Your task to perform on an android device: toggle improve location accuracy Image 0: 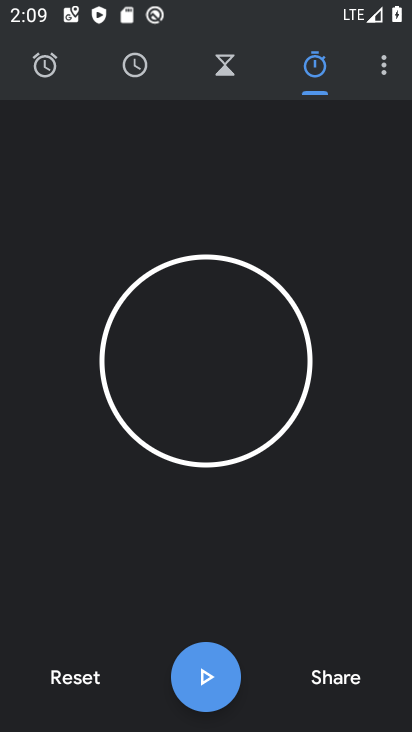
Step 0: press home button
Your task to perform on an android device: toggle improve location accuracy Image 1: 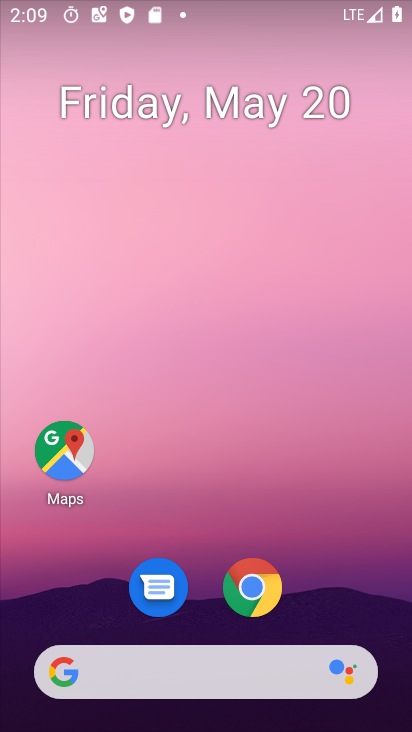
Step 1: drag from (312, 556) to (322, 219)
Your task to perform on an android device: toggle improve location accuracy Image 2: 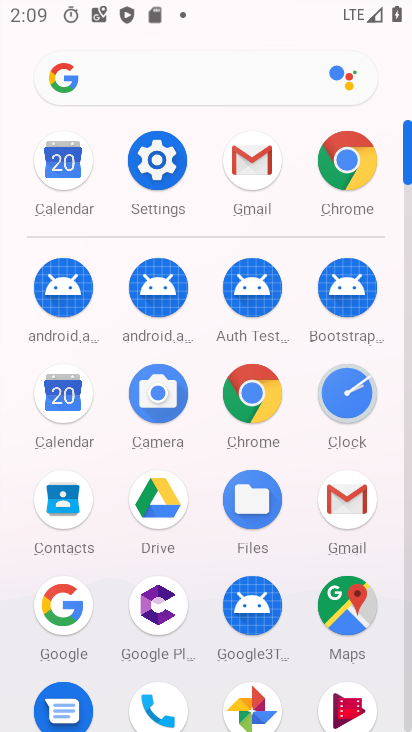
Step 2: click (170, 172)
Your task to perform on an android device: toggle improve location accuracy Image 3: 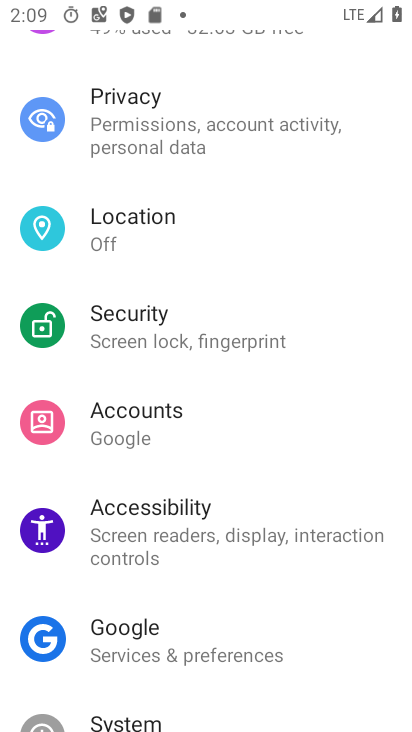
Step 3: drag from (266, 668) to (310, 215)
Your task to perform on an android device: toggle improve location accuracy Image 4: 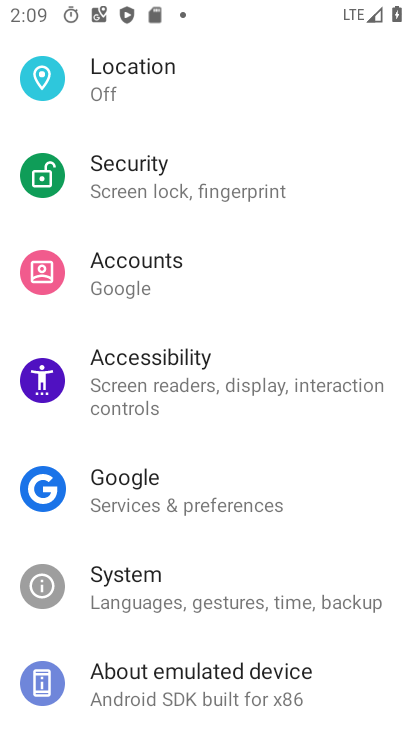
Step 4: drag from (268, 277) to (265, 588)
Your task to perform on an android device: toggle improve location accuracy Image 5: 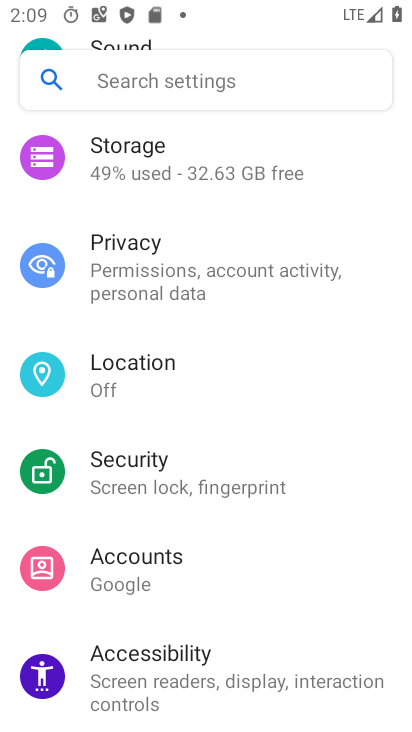
Step 5: click (153, 374)
Your task to perform on an android device: toggle improve location accuracy Image 6: 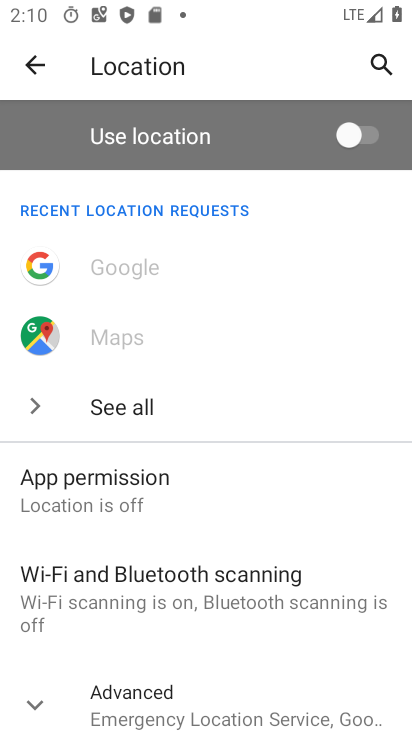
Step 6: drag from (257, 513) to (297, 86)
Your task to perform on an android device: toggle improve location accuracy Image 7: 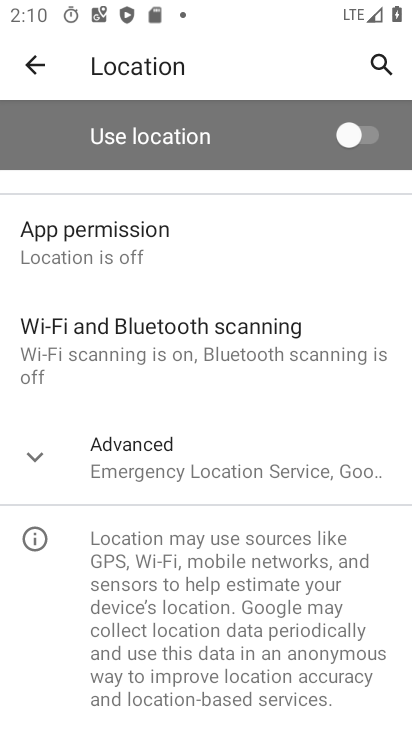
Step 7: click (166, 460)
Your task to perform on an android device: toggle improve location accuracy Image 8: 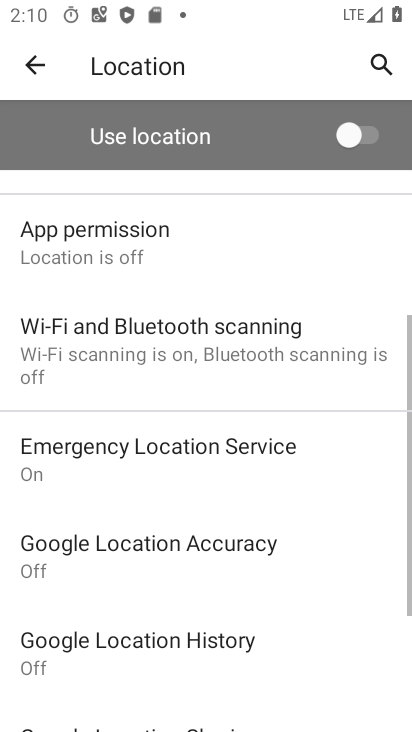
Step 8: drag from (311, 545) to (380, 207)
Your task to perform on an android device: toggle improve location accuracy Image 9: 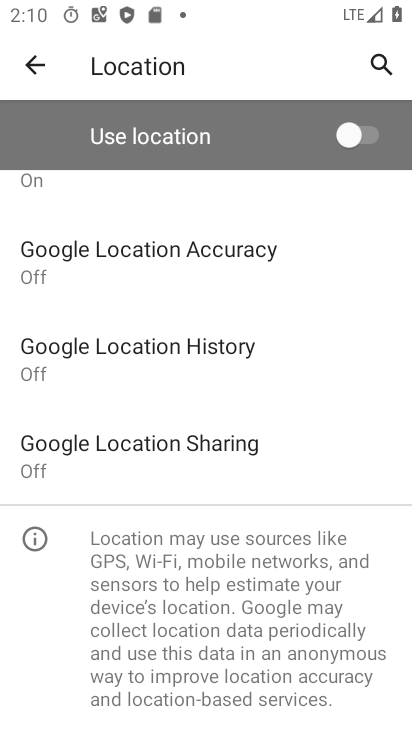
Step 9: click (232, 259)
Your task to perform on an android device: toggle improve location accuracy Image 10: 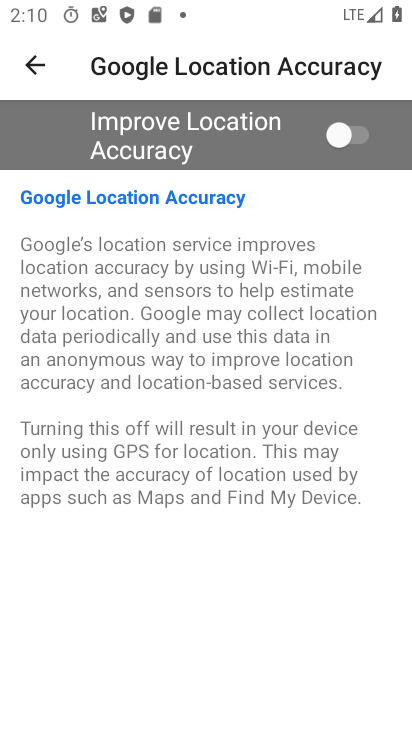
Step 10: click (320, 129)
Your task to perform on an android device: toggle improve location accuracy Image 11: 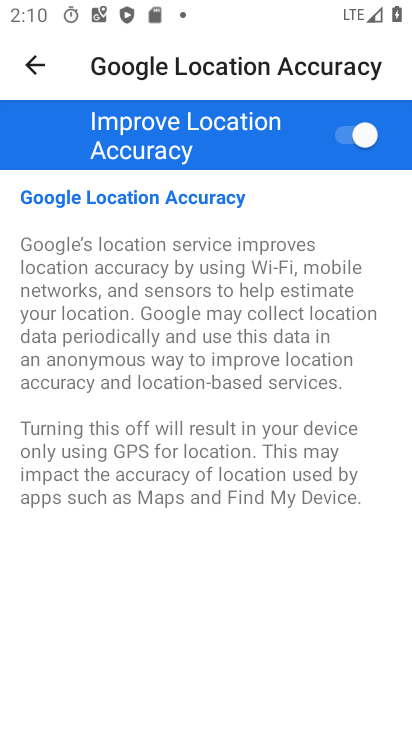
Step 11: task complete